Your task to perform on an android device: Show me the alarms in the clock app Image 0: 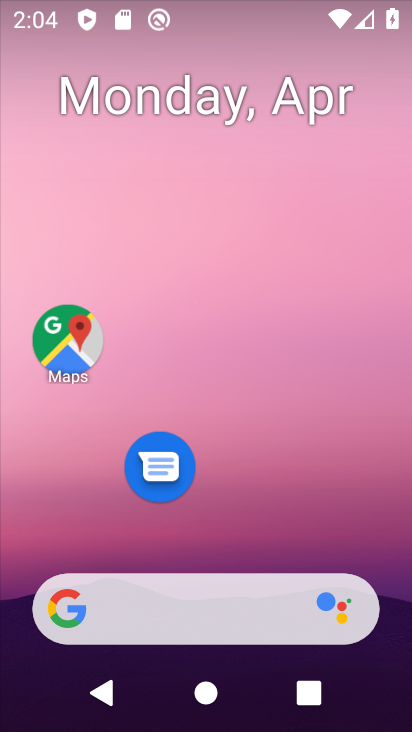
Step 0: drag from (243, 521) to (233, 59)
Your task to perform on an android device: Show me the alarms in the clock app Image 1: 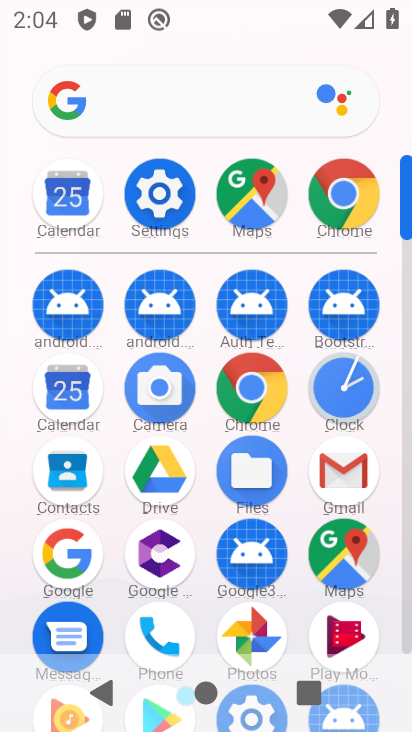
Step 1: click (344, 398)
Your task to perform on an android device: Show me the alarms in the clock app Image 2: 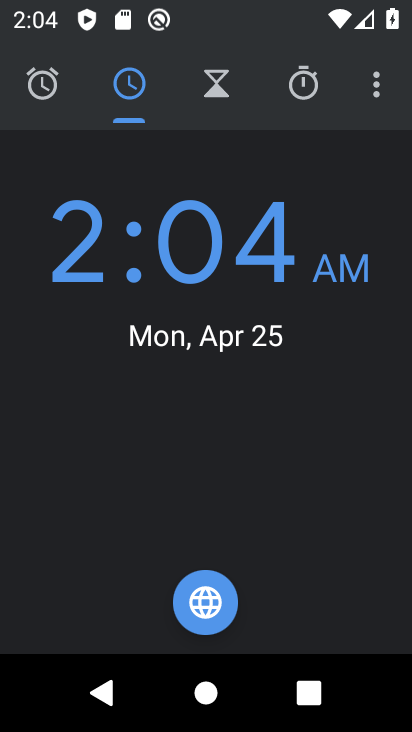
Step 2: click (61, 115)
Your task to perform on an android device: Show me the alarms in the clock app Image 3: 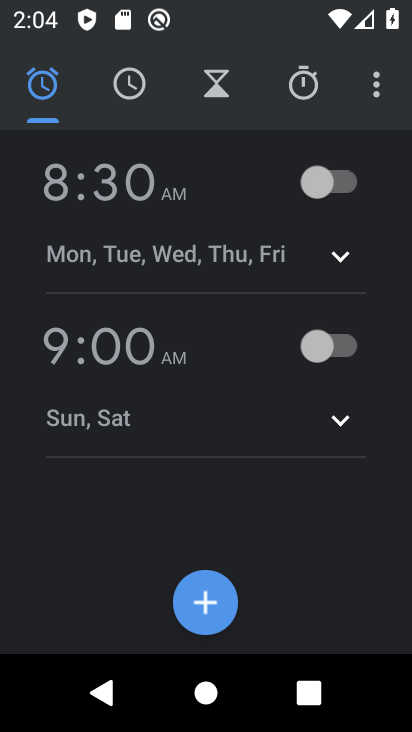
Step 3: task complete